Your task to perform on an android device: Go to Wikipedia Image 0: 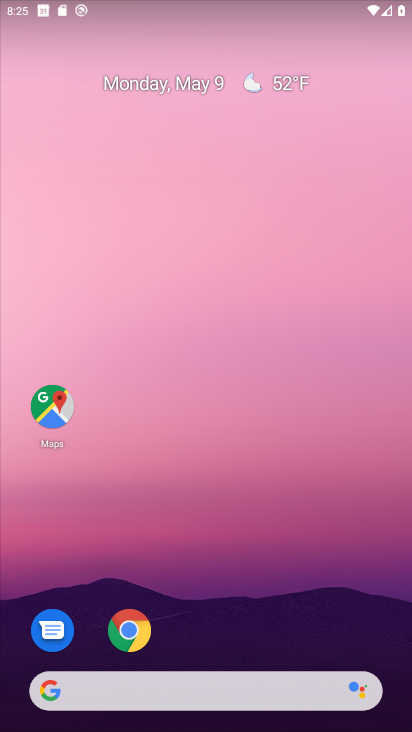
Step 0: click (137, 625)
Your task to perform on an android device: Go to Wikipedia Image 1: 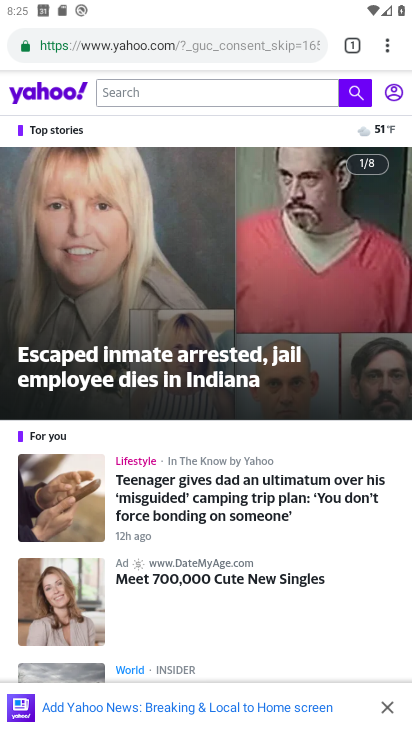
Step 1: click (244, 45)
Your task to perform on an android device: Go to Wikipedia Image 2: 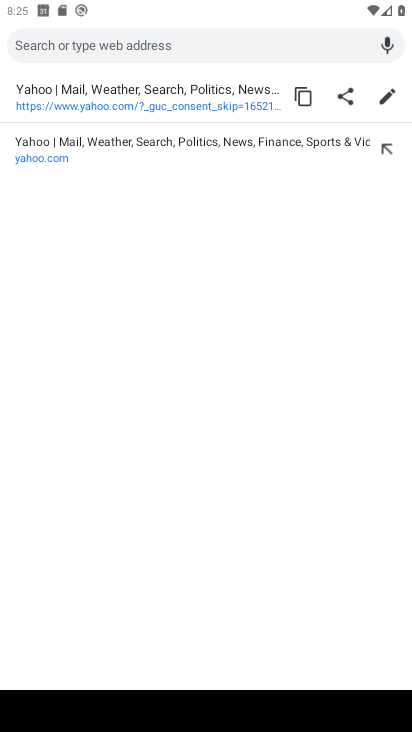
Step 2: type "wikipedia"
Your task to perform on an android device: Go to Wikipedia Image 3: 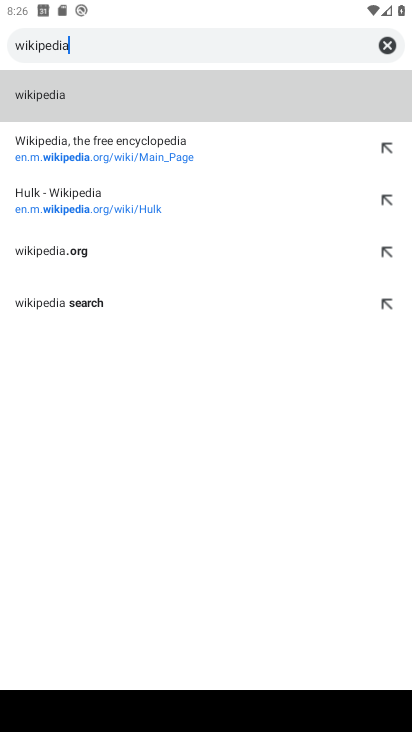
Step 3: click (146, 112)
Your task to perform on an android device: Go to Wikipedia Image 4: 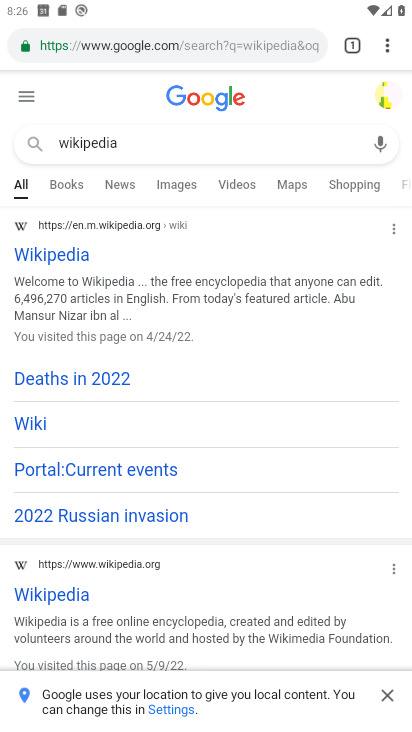
Step 4: task complete